Your task to perform on an android device: Add "razer blade" to the cart on newegg, then select checkout. Image 0: 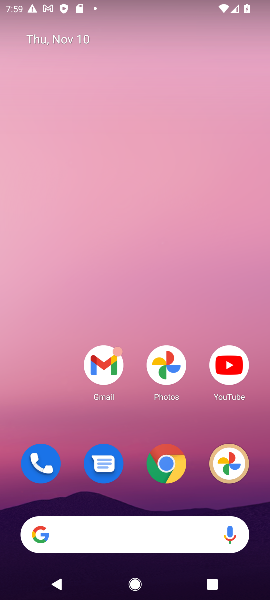
Step 0: click (160, 464)
Your task to perform on an android device: Add "razer blade" to the cart on newegg, then select checkout. Image 1: 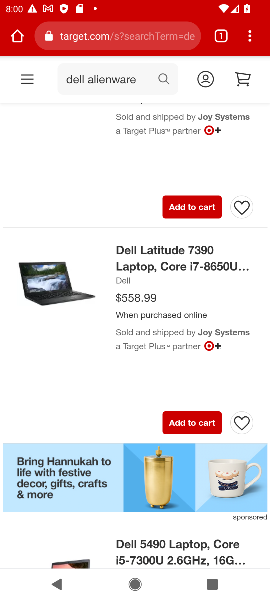
Step 1: click (129, 40)
Your task to perform on an android device: Add "razer blade" to the cart on newegg, then select checkout. Image 2: 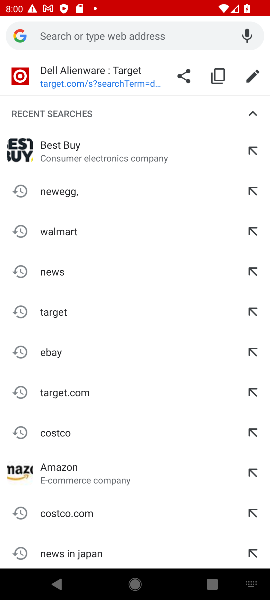
Step 2: click (59, 192)
Your task to perform on an android device: Add "razer blade" to the cart on newegg, then select checkout. Image 3: 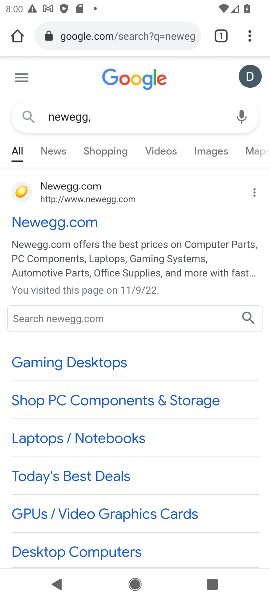
Step 3: click (77, 221)
Your task to perform on an android device: Add "razer blade" to the cart on newegg, then select checkout. Image 4: 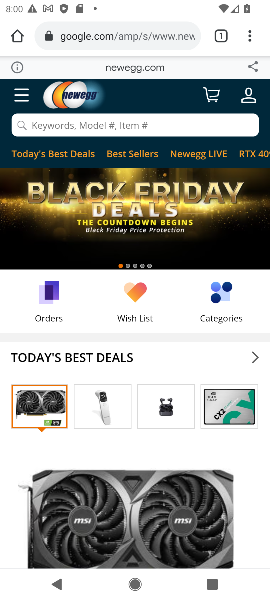
Step 4: click (195, 124)
Your task to perform on an android device: Add "razer blade" to the cart on newegg, then select checkout. Image 5: 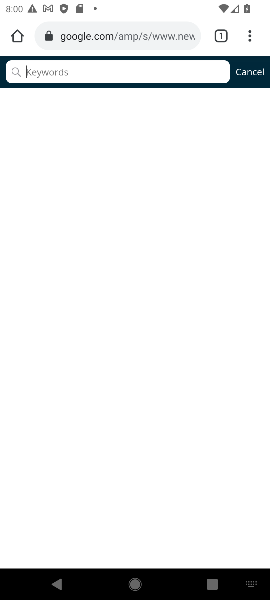
Step 5: type "razer blade"
Your task to perform on an android device: Add "razer blade" to the cart on newegg, then select checkout. Image 6: 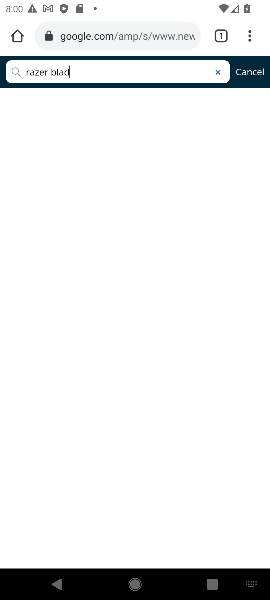
Step 6: press enter
Your task to perform on an android device: Add "razer blade" to the cart on newegg, then select checkout. Image 7: 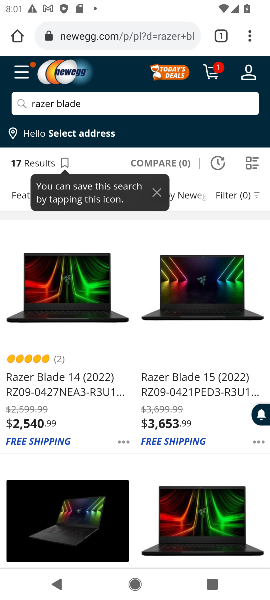
Step 7: click (54, 379)
Your task to perform on an android device: Add "razer blade" to the cart on newegg, then select checkout. Image 8: 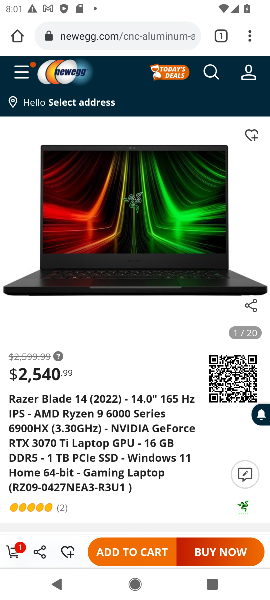
Step 8: click (137, 553)
Your task to perform on an android device: Add "razer blade" to the cart on newegg, then select checkout. Image 9: 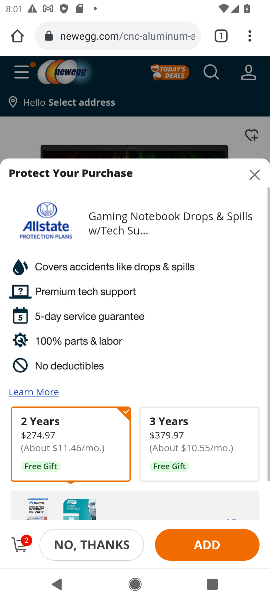
Step 9: click (21, 544)
Your task to perform on an android device: Add "razer blade" to the cart on newegg, then select checkout. Image 10: 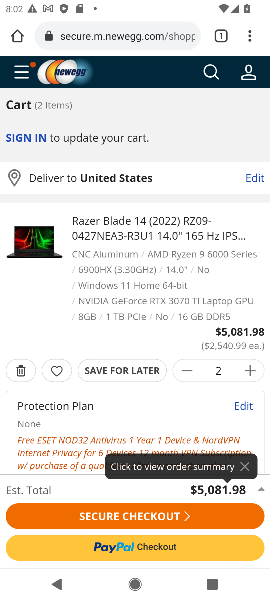
Step 10: drag from (59, 419) to (242, 54)
Your task to perform on an android device: Add "razer blade" to the cart on newegg, then select checkout. Image 11: 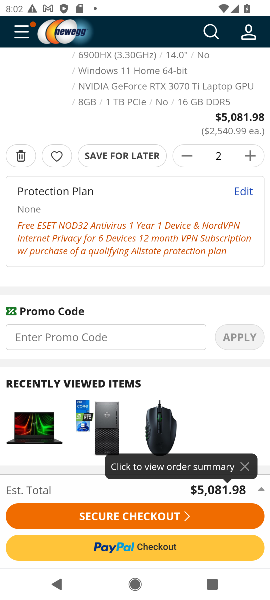
Step 11: drag from (138, 363) to (229, 113)
Your task to perform on an android device: Add "razer blade" to the cart on newegg, then select checkout. Image 12: 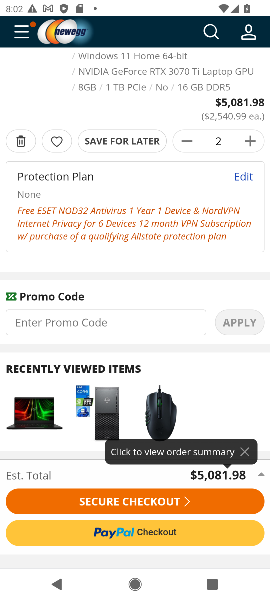
Step 12: drag from (51, 449) to (178, 211)
Your task to perform on an android device: Add "razer blade" to the cart on newegg, then select checkout. Image 13: 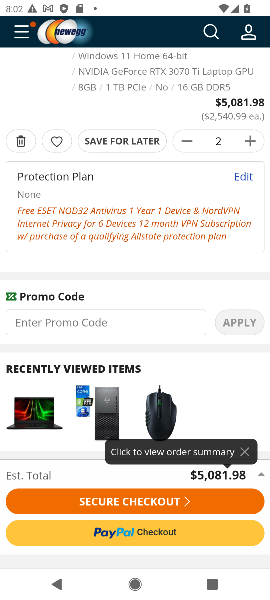
Step 13: drag from (188, 111) to (165, 372)
Your task to perform on an android device: Add "razer blade" to the cart on newegg, then select checkout. Image 14: 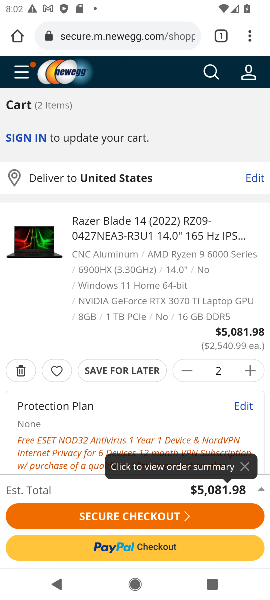
Step 14: click (144, 510)
Your task to perform on an android device: Add "razer blade" to the cart on newegg, then select checkout. Image 15: 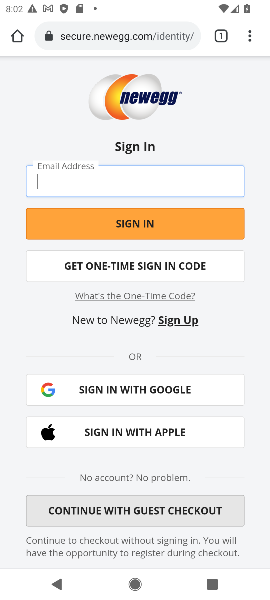
Step 15: task complete